Your task to perform on an android device: Is it going to rain this weekend? Image 0: 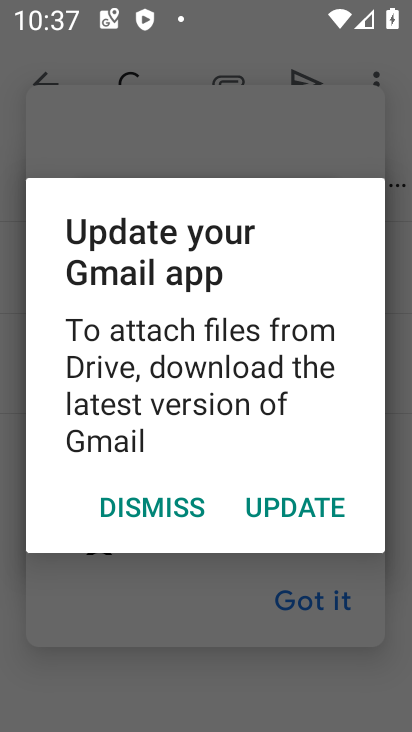
Step 0: press home button
Your task to perform on an android device: Is it going to rain this weekend? Image 1: 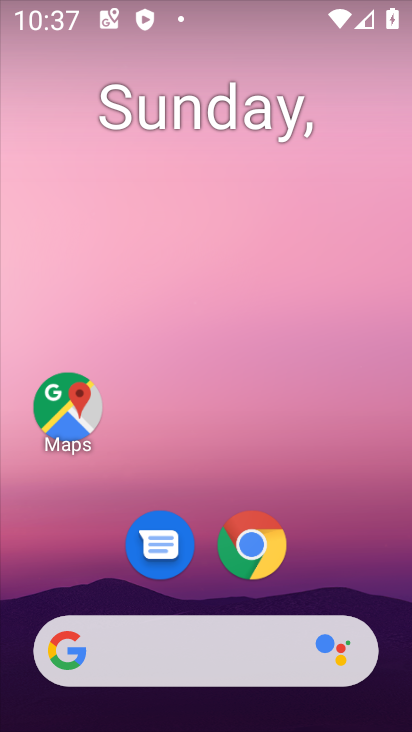
Step 1: drag from (11, 320) to (407, 225)
Your task to perform on an android device: Is it going to rain this weekend? Image 2: 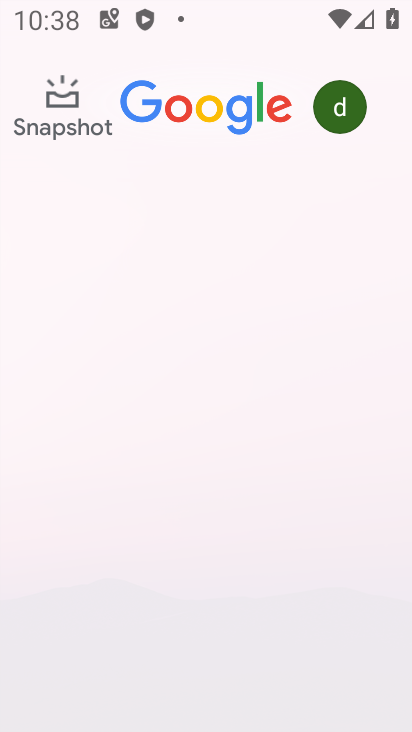
Step 2: press home button
Your task to perform on an android device: Is it going to rain this weekend? Image 3: 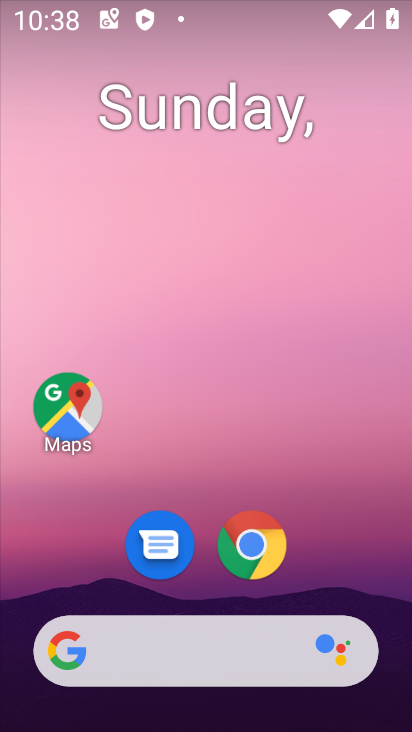
Step 3: click (189, 638)
Your task to perform on an android device: Is it going to rain this weekend? Image 4: 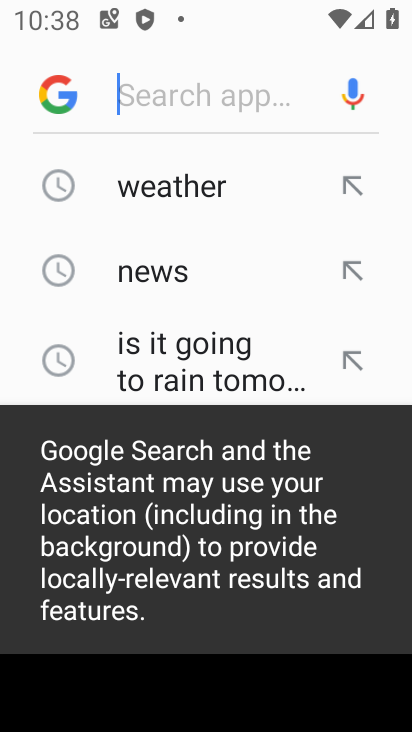
Step 4: click (205, 209)
Your task to perform on an android device: Is it going to rain this weekend? Image 5: 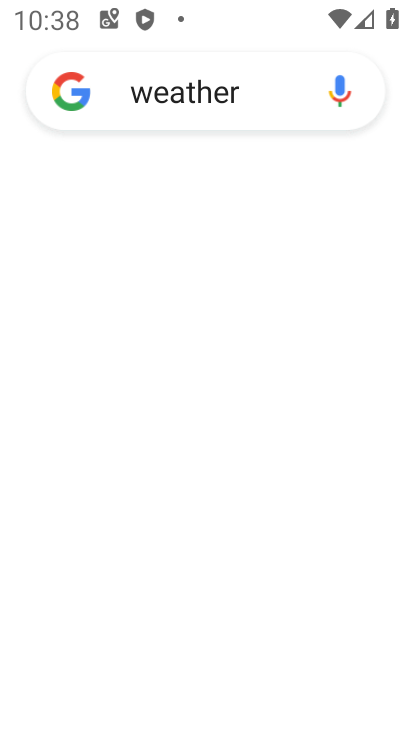
Step 5: click (205, 195)
Your task to perform on an android device: Is it going to rain this weekend? Image 6: 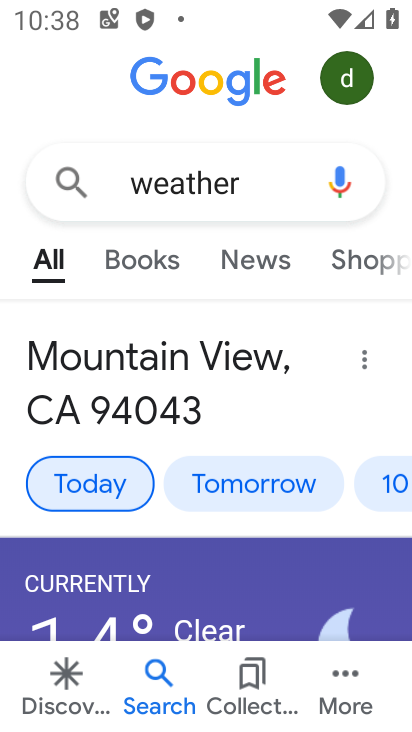
Step 6: click (380, 482)
Your task to perform on an android device: Is it going to rain this weekend? Image 7: 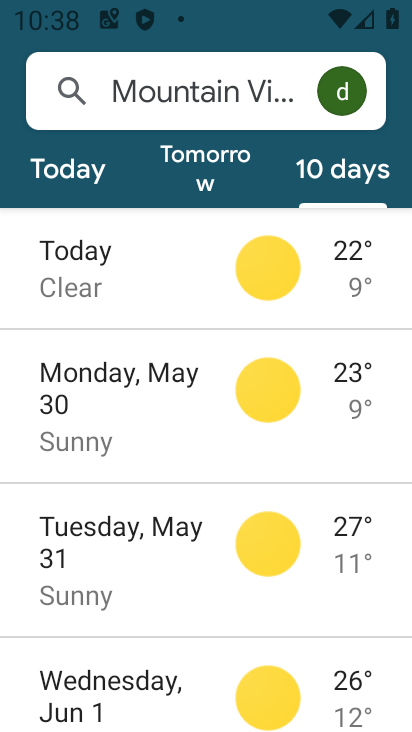
Step 7: task complete